Your task to perform on an android device: Search for "jbl flip 4" on walmart.com, select the first entry, and add it to the cart. Image 0: 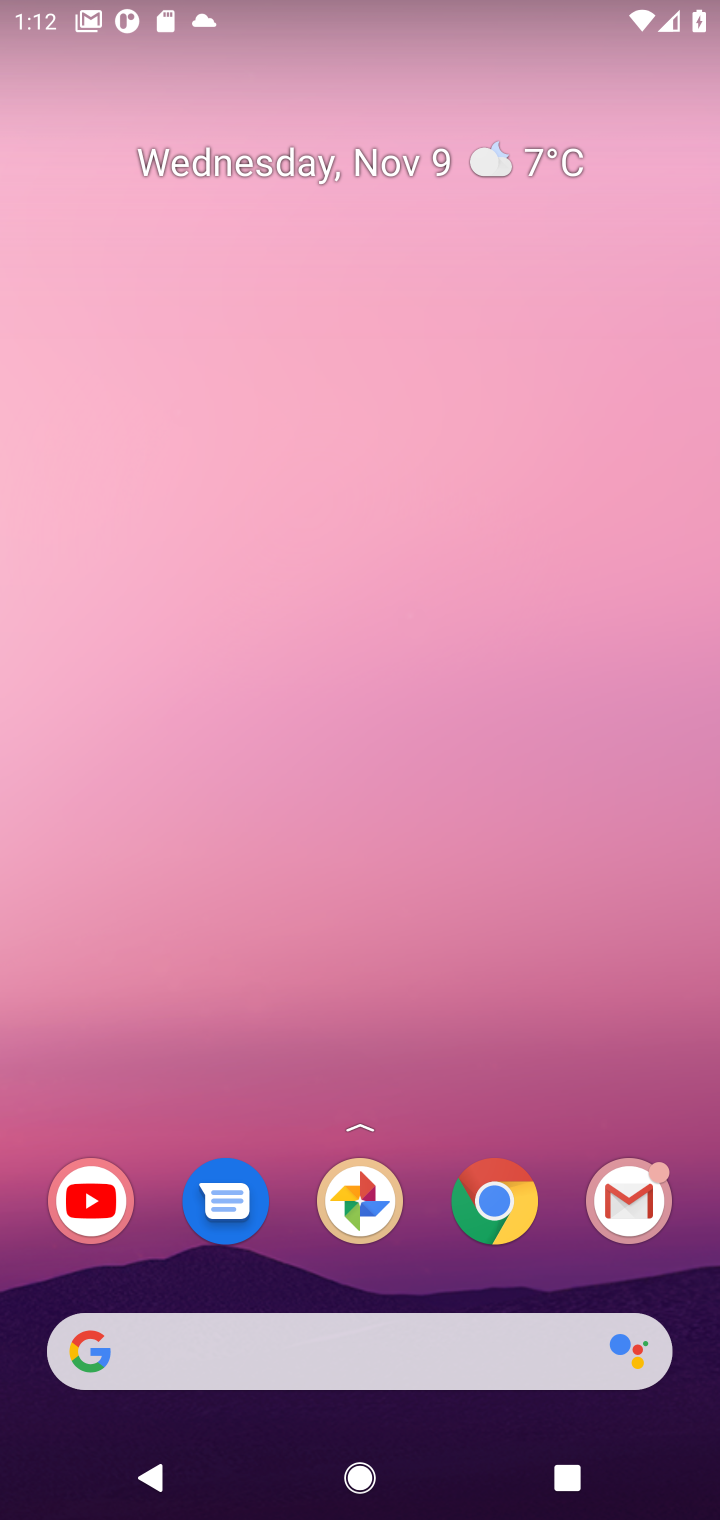
Step 0: click (307, 1341)
Your task to perform on an android device: Search for "jbl flip 4" on walmart.com, select the first entry, and add it to the cart. Image 1: 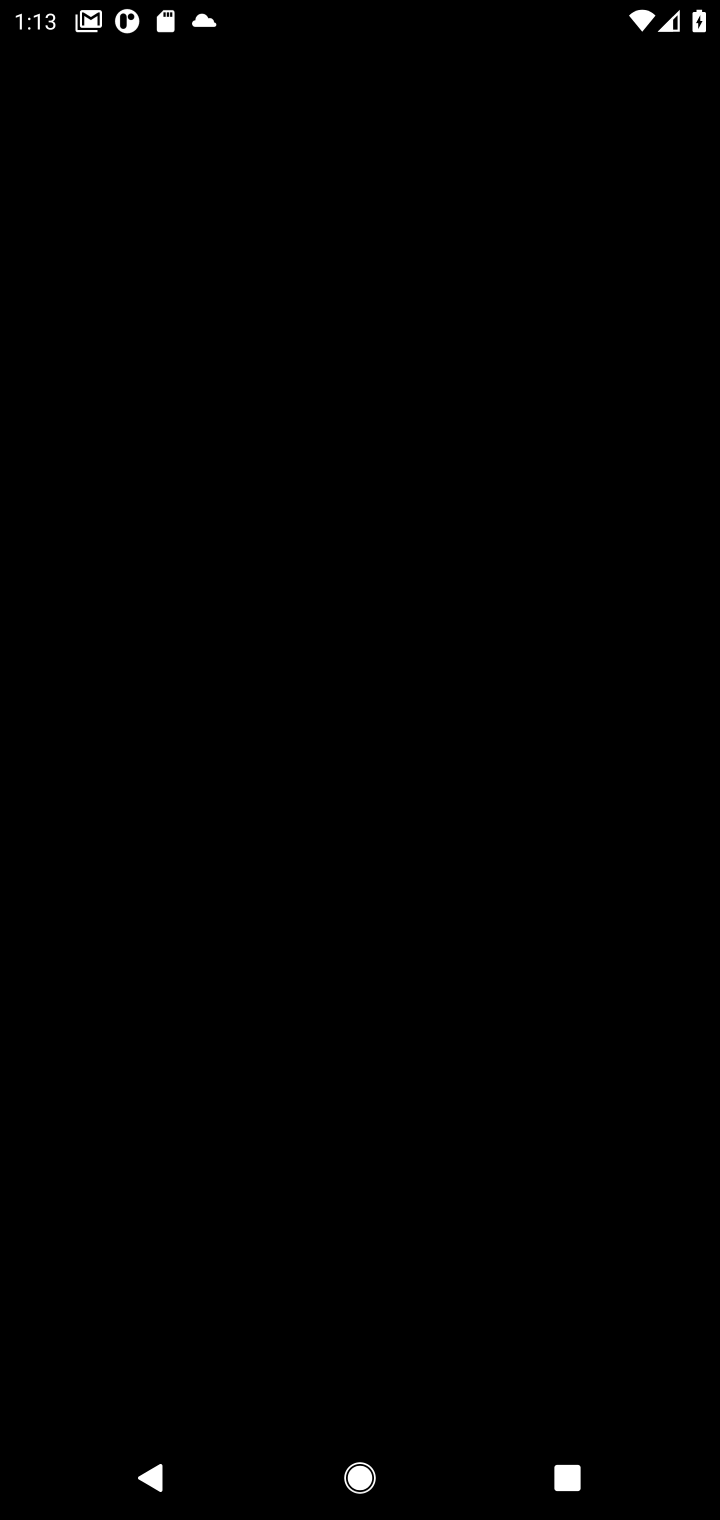
Step 1: press home button
Your task to perform on an android device: Search for "jbl flip 4" on walmart.com, select the first entry, and add it to the cart. Image 2: 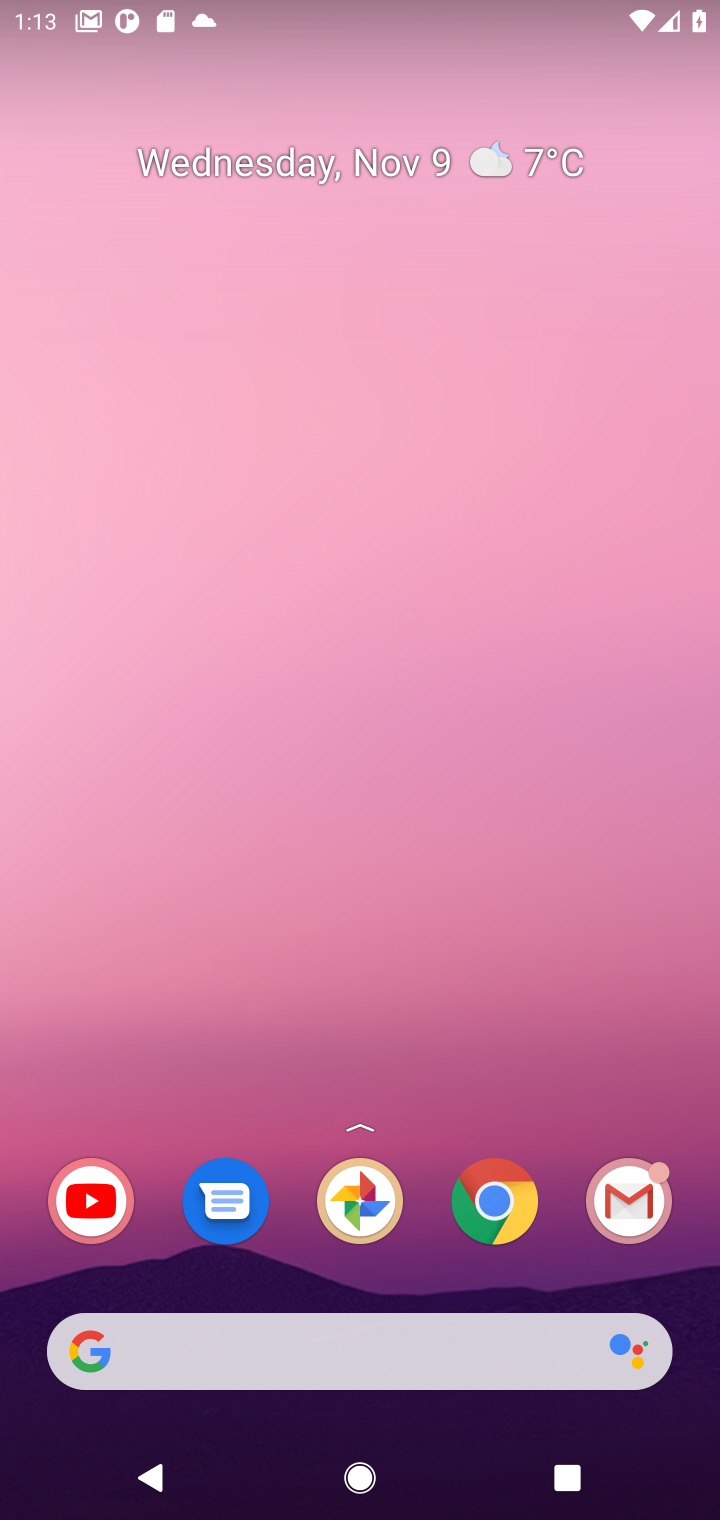
Step 2: click (363, 1324)
Your task to perform on an android device: Search for "jbl flip 4" on walmart.com, select the first entry, and add it to the cart. Image 3: 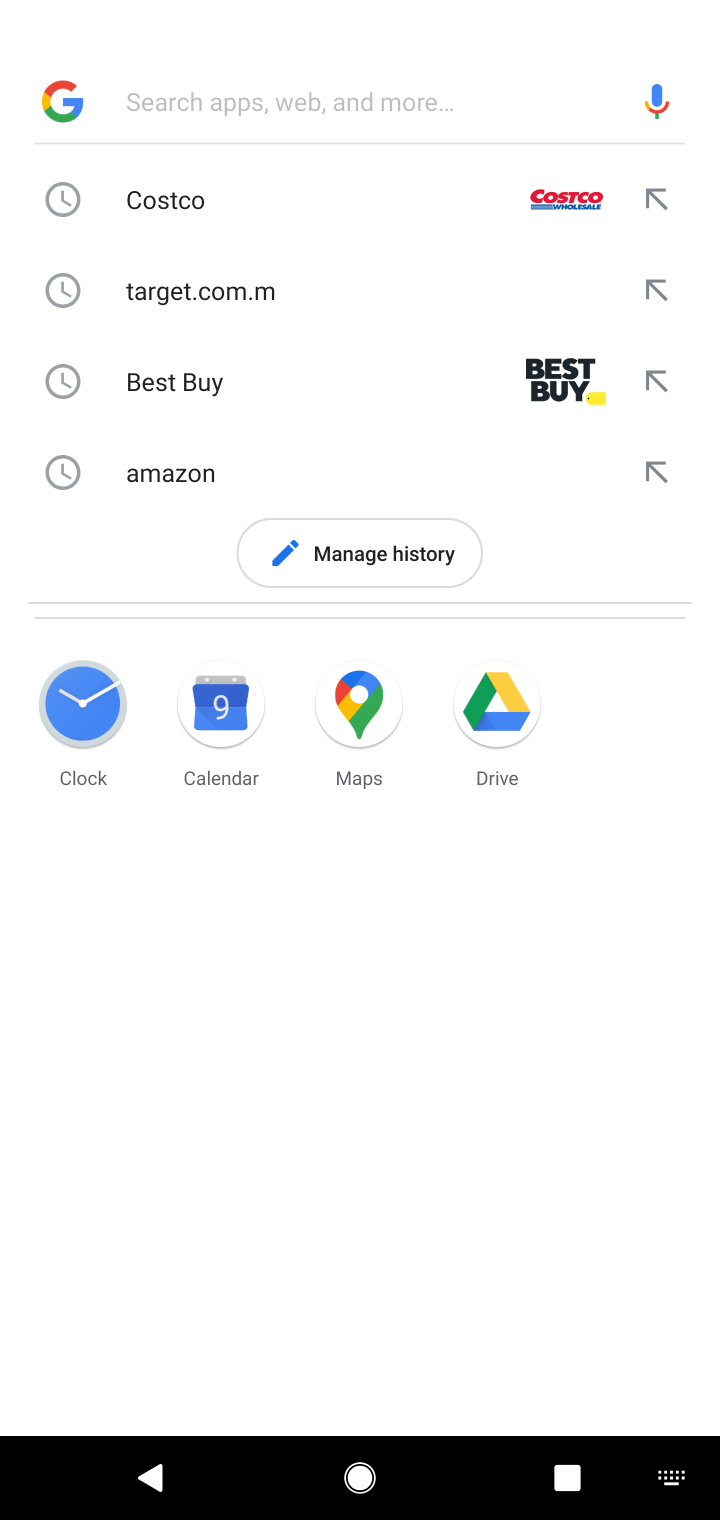
Step 3: type "walmart.com"
Your task to perform on an android device: Search for "jbl flip 4" on walmart.com, select the first entry, and add it to the cart. Image 4: 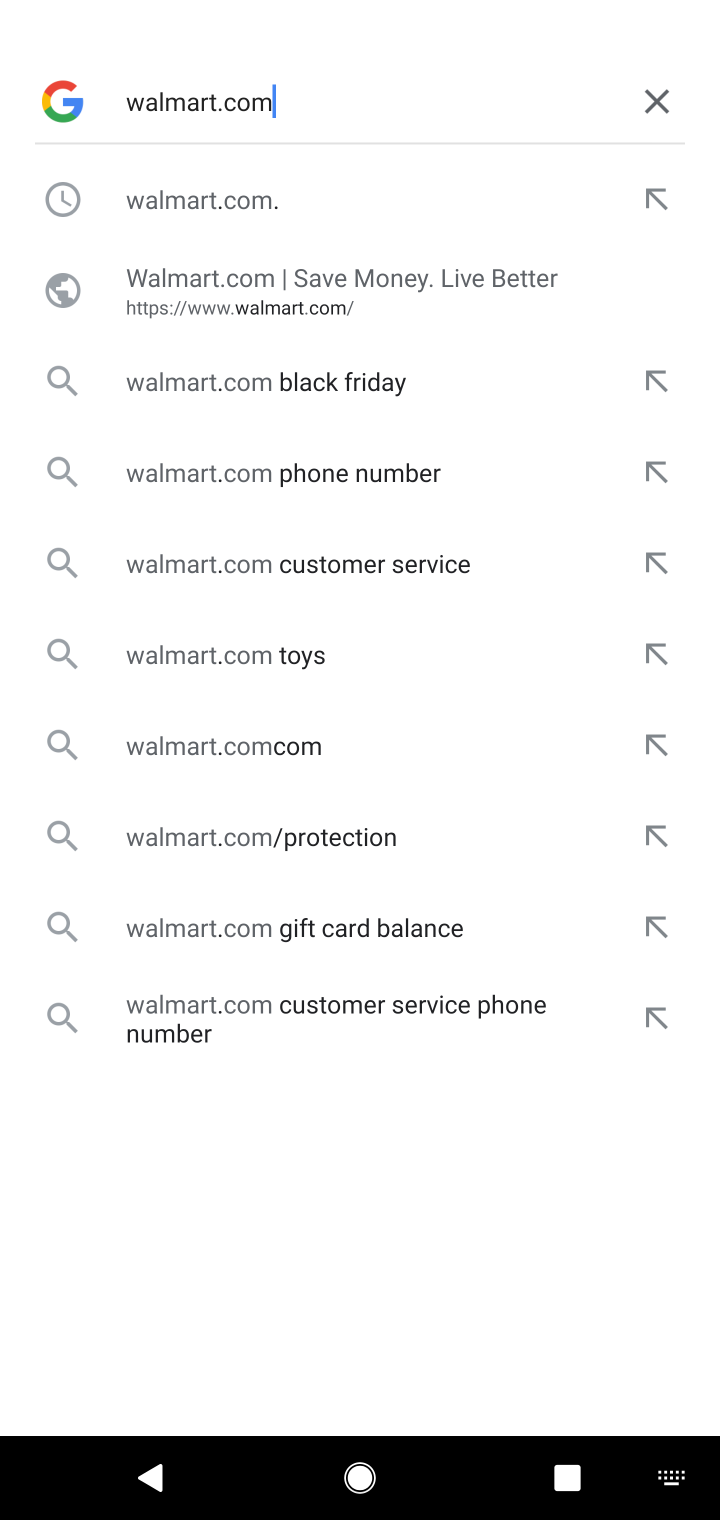
Step 4: click (330, 287)
Your task to perform on an android device: Search for "jbl flip 4" on walmart.com, select the first entry, and add it to the cart. Image 5: 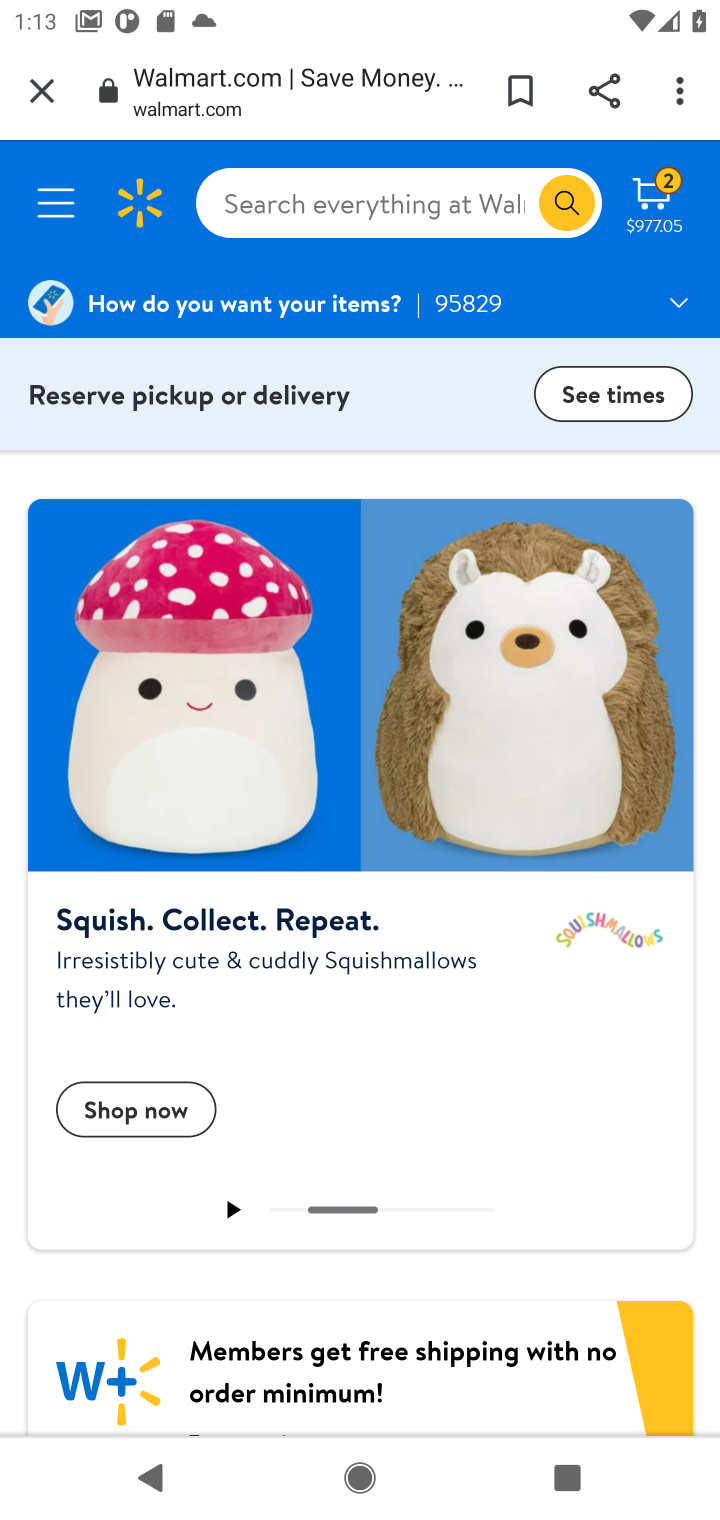
Step 5: click (435, 176)
Your task to perform on an android device: Search for "jbl flip 4" on walmart.com, select the first entry, and add it to the cart. Image 6: 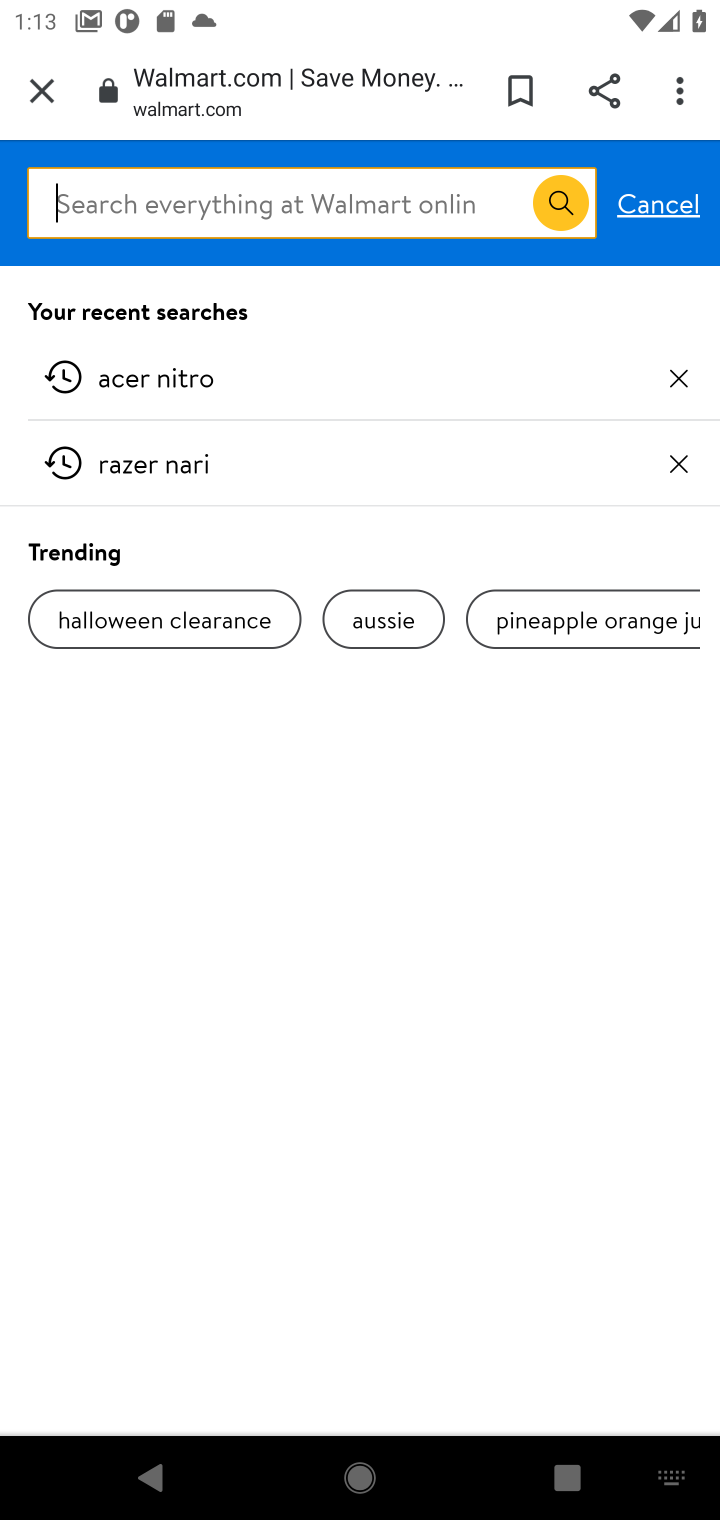
Step 6: type "jbl flip 4"
Your task to perform on an android device: Search for "jbl flip 4" on walmart.com, select the first entry, and add it to the cart. Image 7: 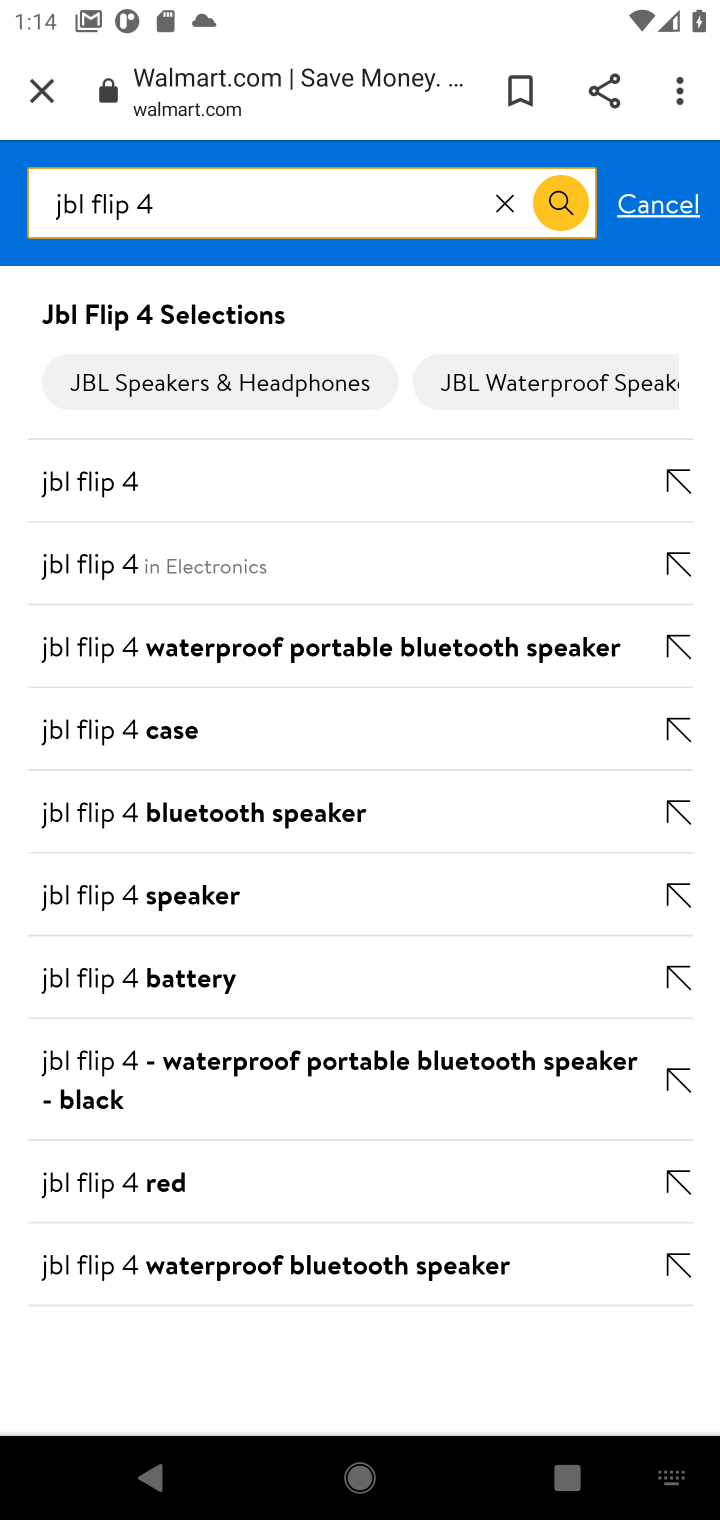
Step 7: click (92, 475)
Your task to perform on an android device: Search for "jbl flip 4" on walmart.com, select the first entry, and add it to the cart. Image 8: 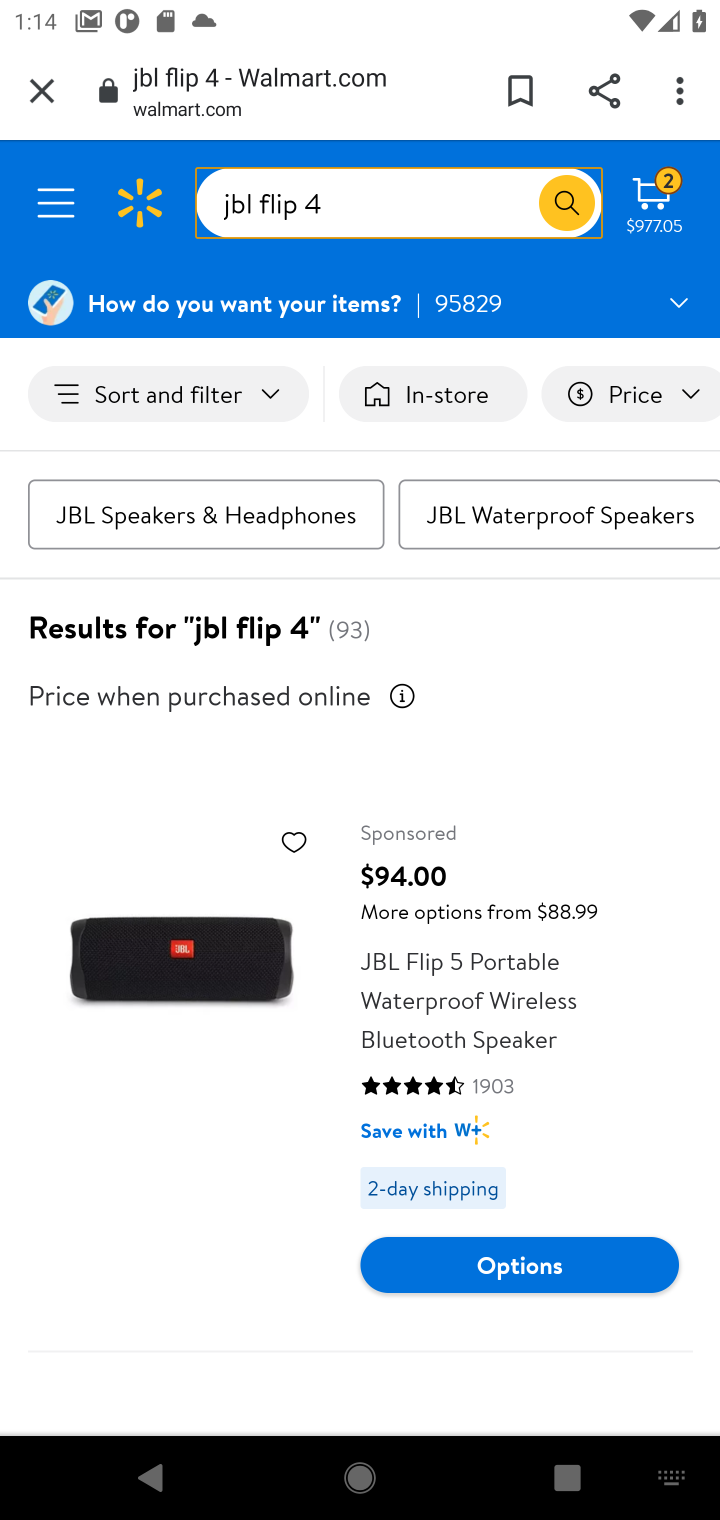
Step 8: click (493, 1261)
Your task to perform on an android device: Search for "jbl flip 4" on walmart.com, select the first entry, and add it to the cart. Image 9: 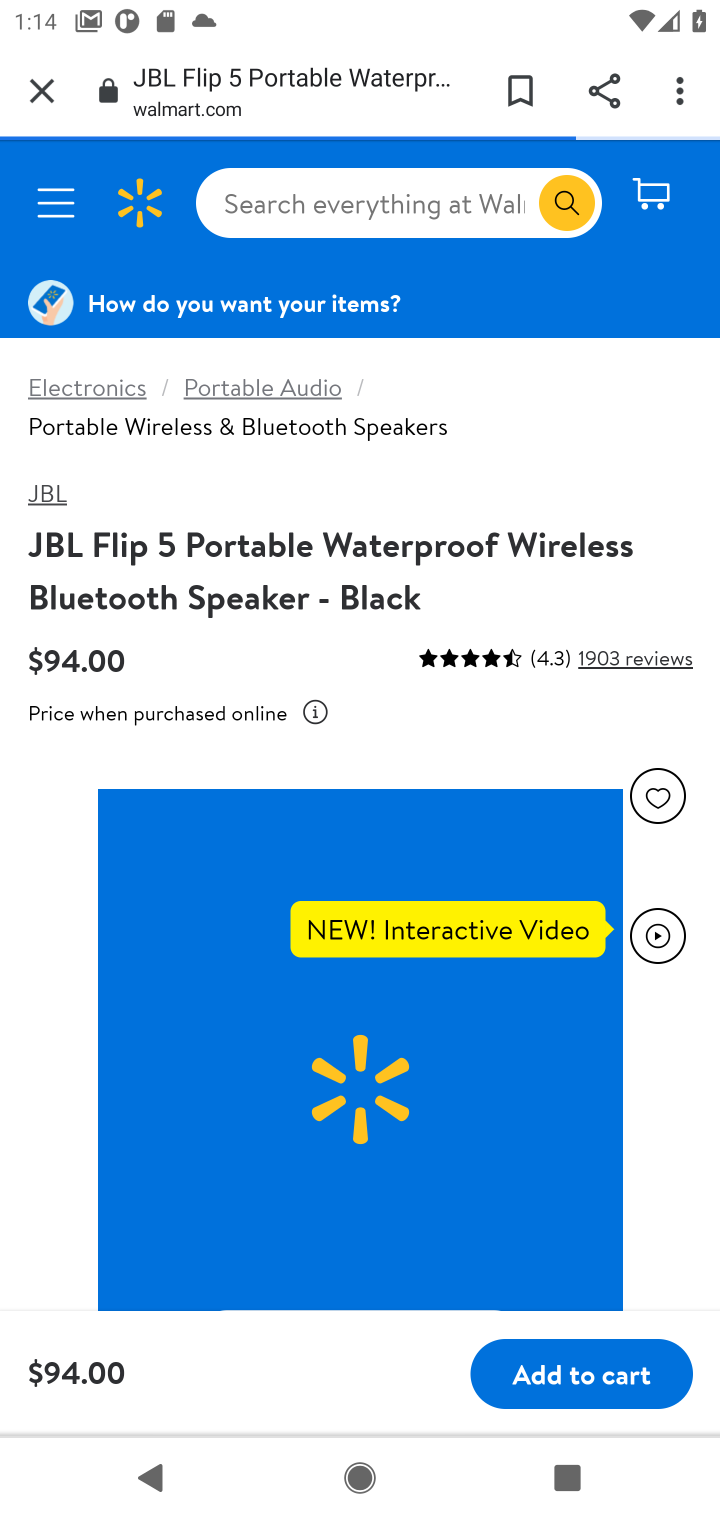
Step 9: click (616, 1367)
Your task to perform on an android device: Search for "jbl flip 4" on walmart.com, select the first entry, and add it to the cart. Image 10: 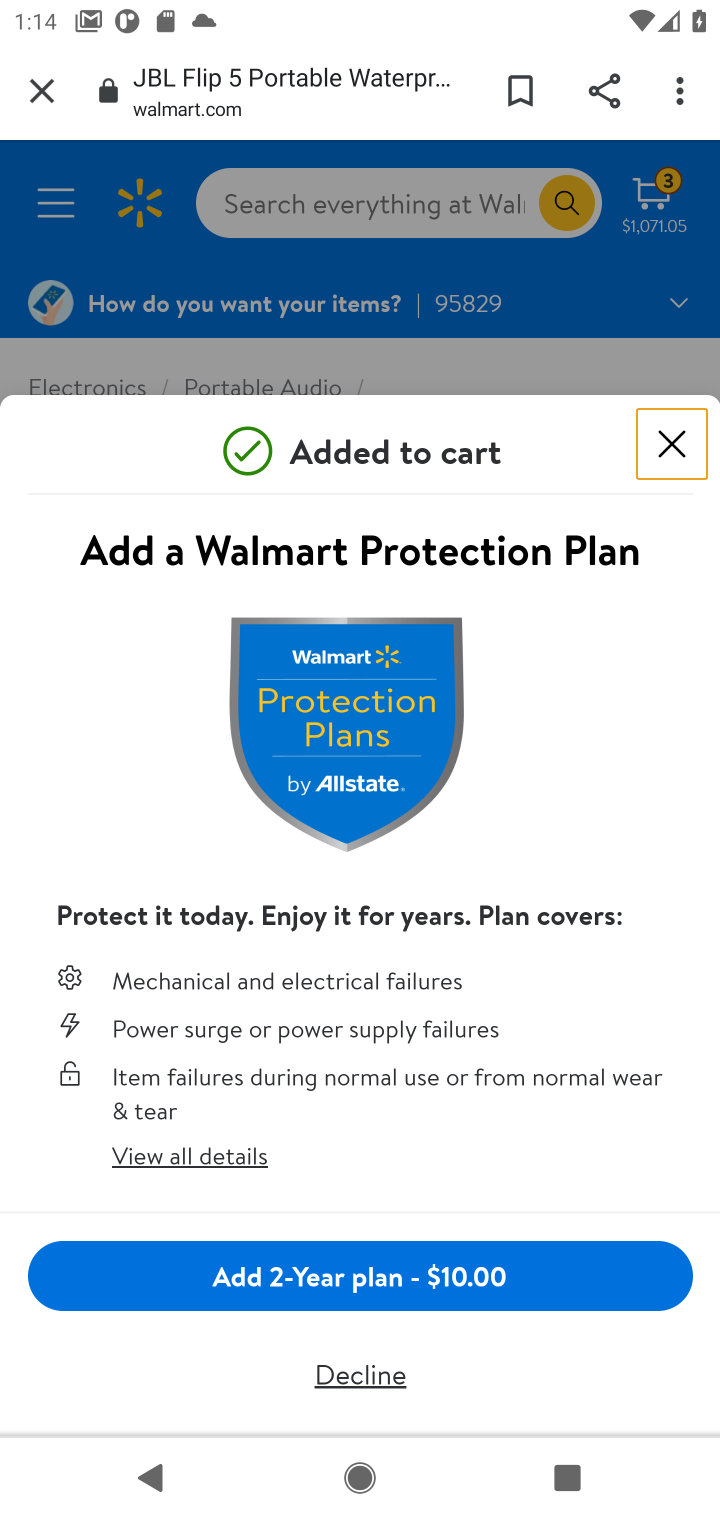
Step 10: task complete